Your task to perform on an android device: Open the web browser Image 0: 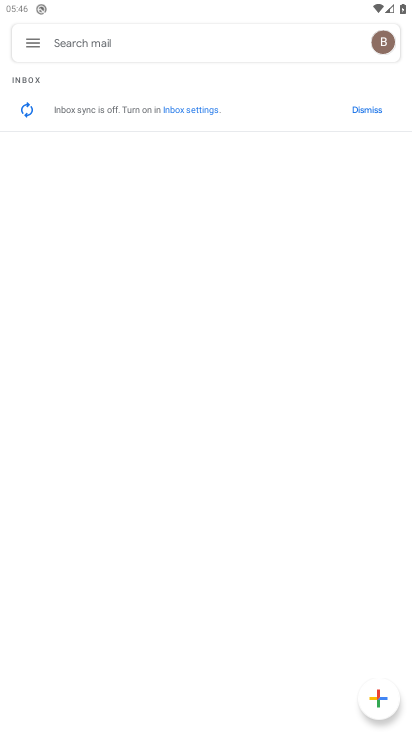
Step 0: press home button
Your task to perform on an android device: Open the web browser Image 1: 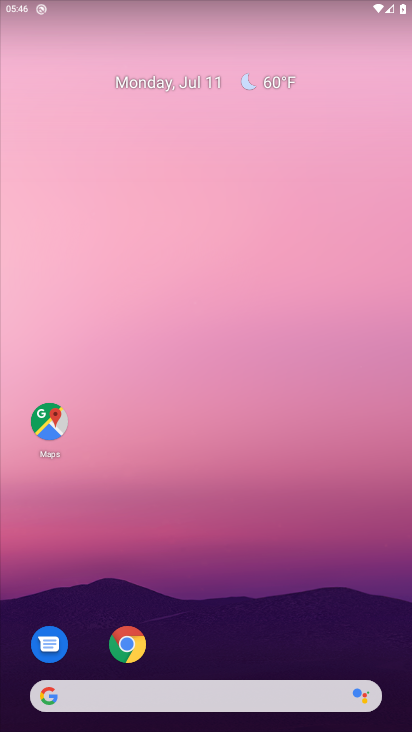
Step 1: click (133, 651)
Your task to perform on an android device: Open the web browser Image 2: 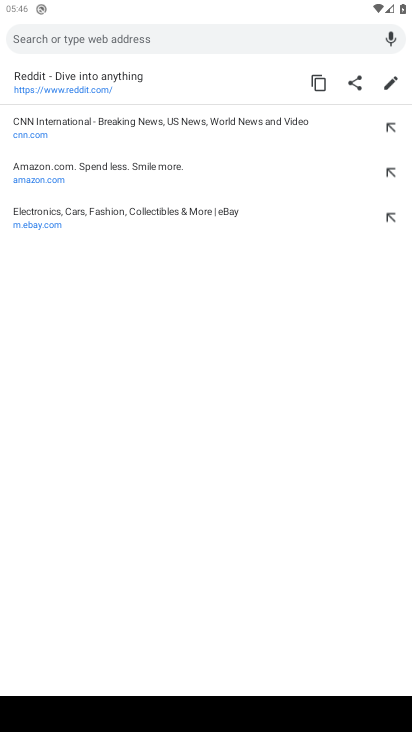
Step 2: click (306, 34)
Your task to perform on an android device: Open the web browser Image 3: 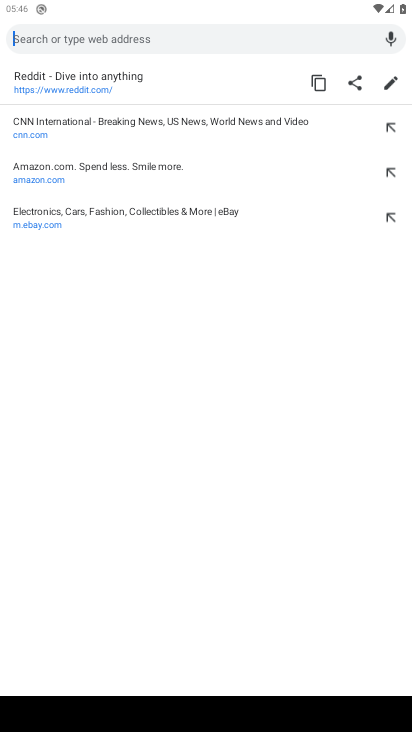
Step 3: click (94, 47)
Your task to perform on an android device: Open the web browser Image 4: 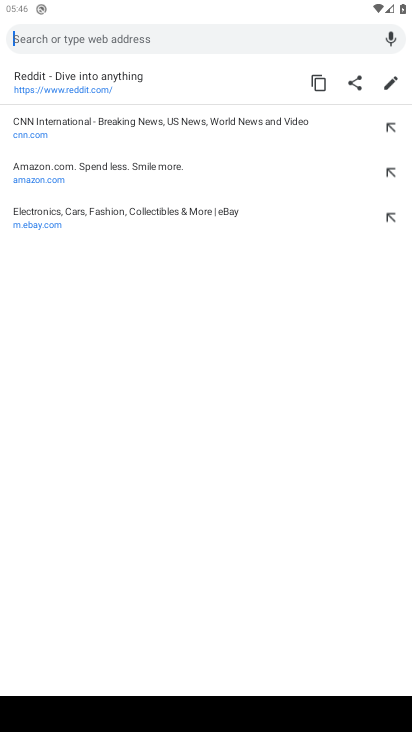
Step 4: click (94, 41)
Your task to perform on an android device: Open the web browser Image 5: 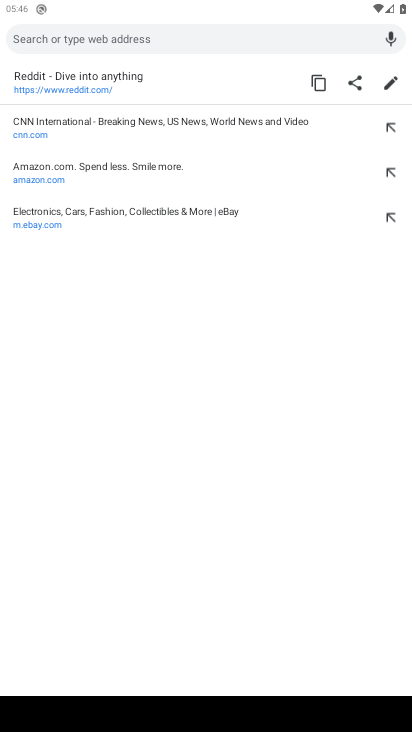
Step 5: press back button
Your task to perform on an android device: Open the web browser Image 6: 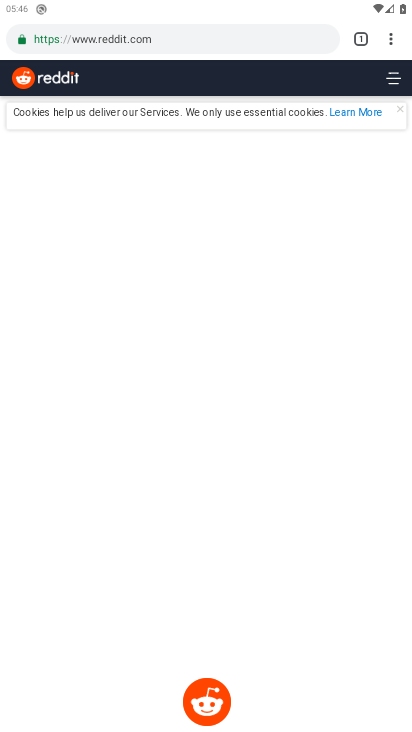
Step 6: click (360, 37)
Your task to perform on an android device: Open the web browser Image 7: 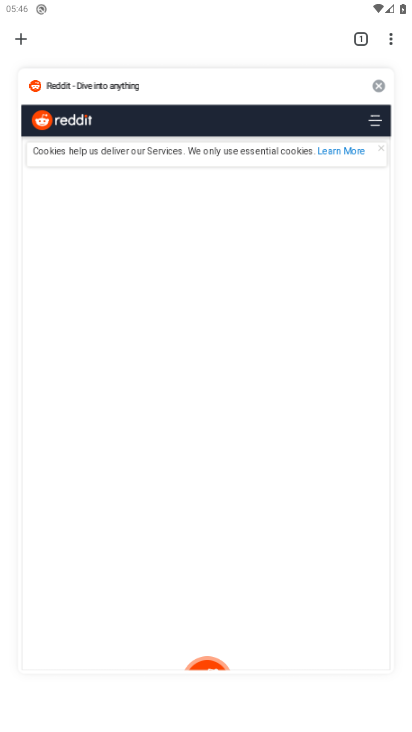
Step 7: click (382, 88)
Your task to perform on an android device: Open the web browser Image 8: 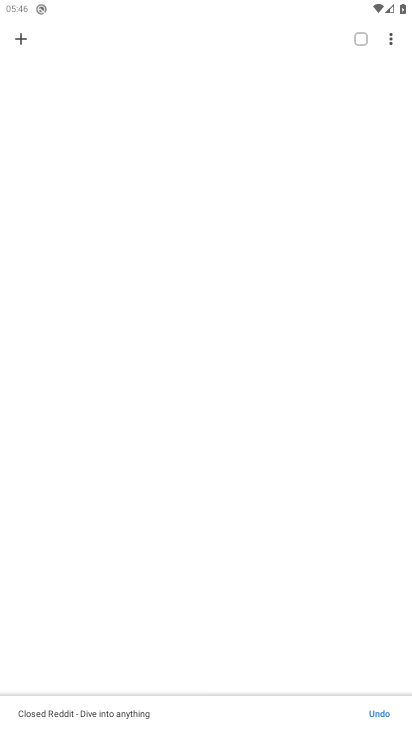
Step 8: click (19, 37)
Your task to perform on an android device: Open the web browser Image 9: 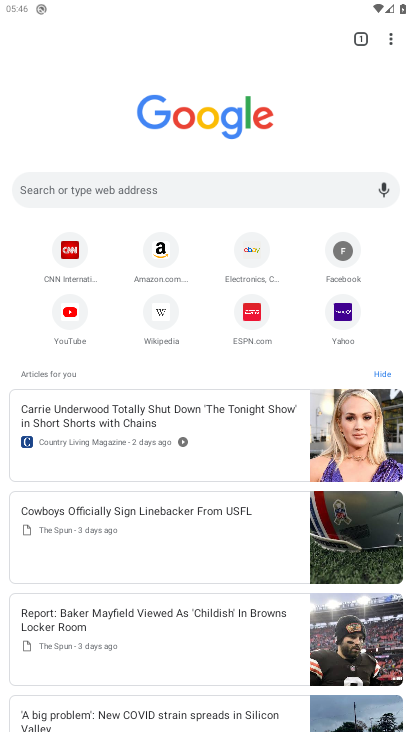
Step 9: task complete